Your task to perform on an android device: open chrome privacy settings Image 0: 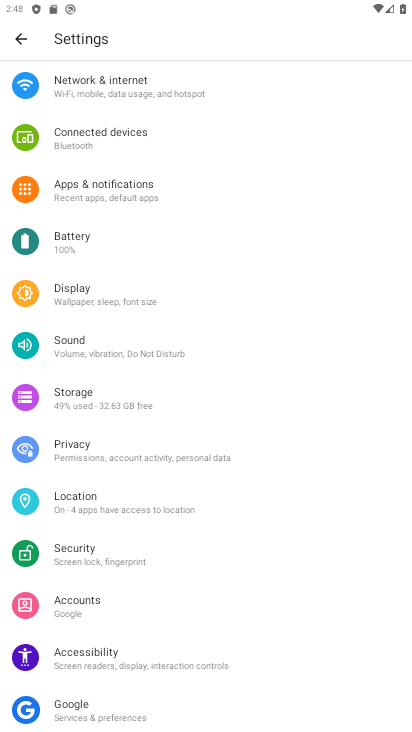
Step 0: click (80, 436)
Your task to perform on an android device: open chrome privacy settings Image 1: 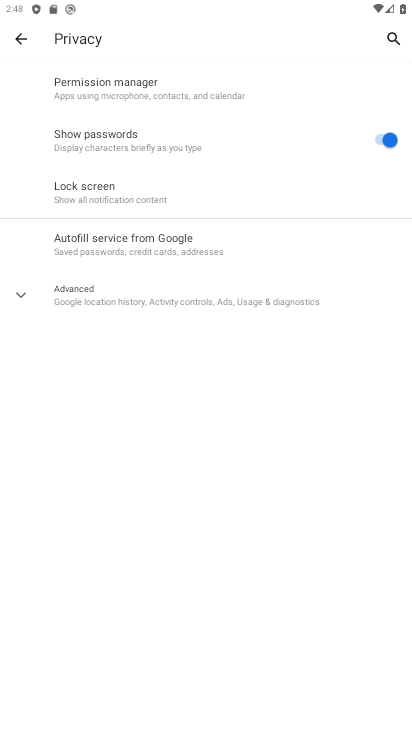
Step 1: task complete